Your task to perform on an android device: turn on wifi Image 0: 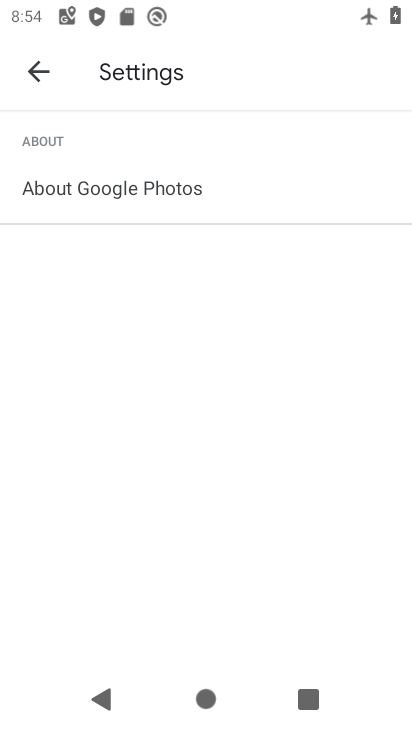
Step 0: press home button
Your task to perform on an android device: turn on wifi Image 1: 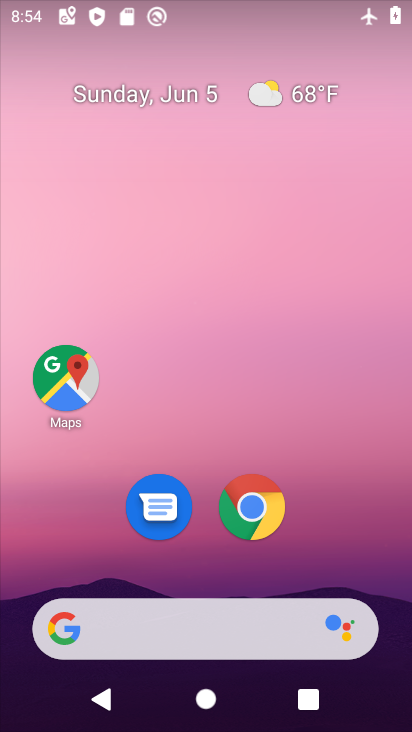
Step 1: drag from (244, 568) to (297, 36)
Your task to perform on an android device: turn on wifi Image 2: 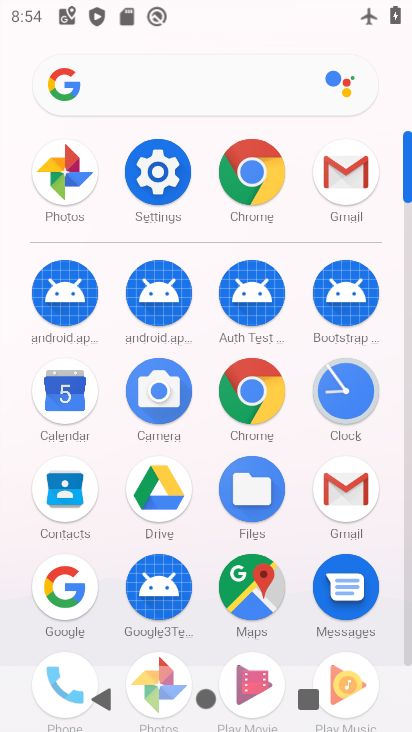
Step 2: click (163, 195)
Your task to perform on an android device: turn on wifi Image 3: 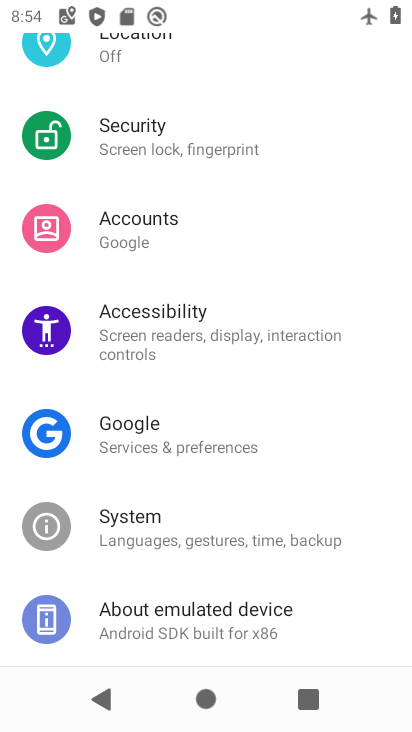
Step 3: drag from (242, 168) to (169, 701)
Your task to perform on an android device: turn on wifi Image 4: 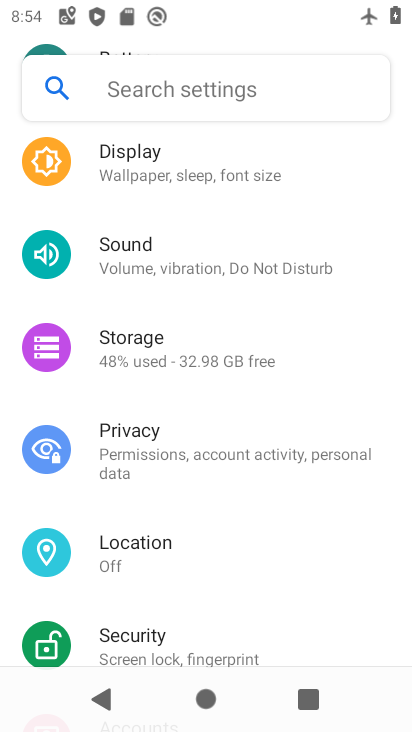
Step 4: drag from (183, 212) to (164, 698)
Your task to perform on an android device: turn on wifi Image 5: 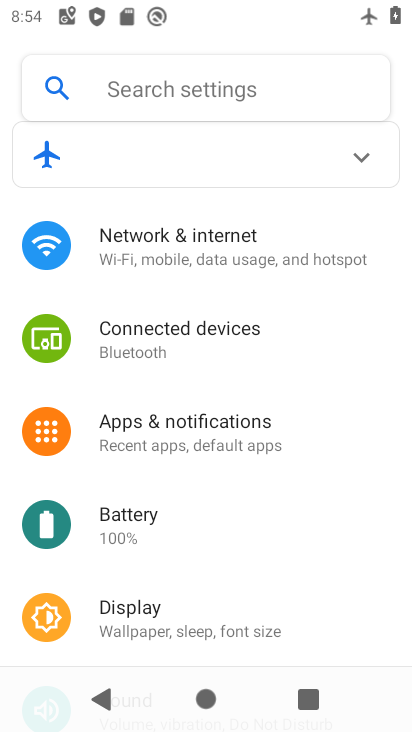
Step 5: click (217, 246)
Your task to perform on an android device: turn on wifi Image 6: 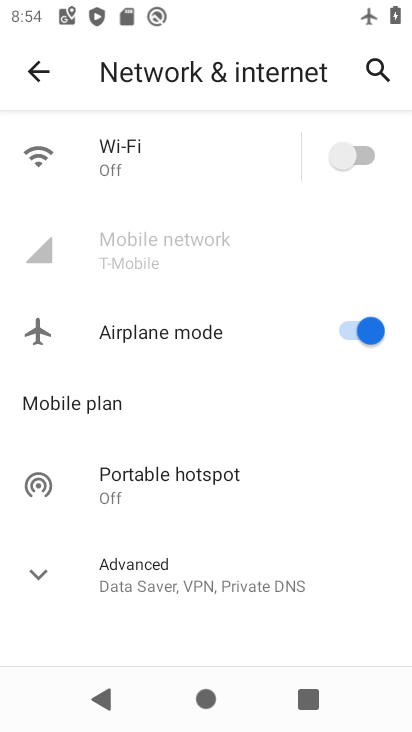
Step 6: click (375, 158)
Your task to perform on an android device: turn on wifi Image 7: 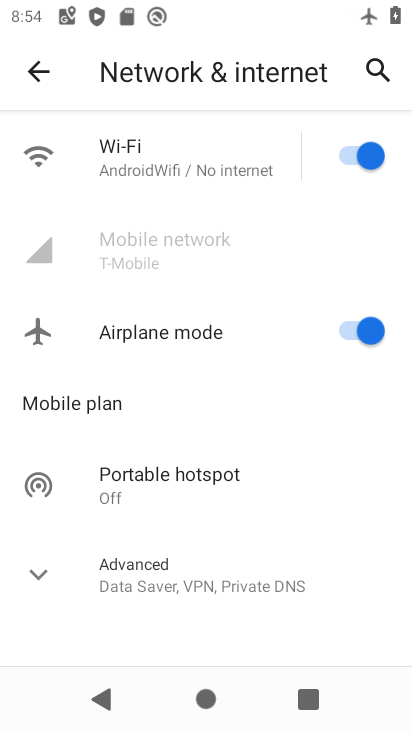
Step 7: task complete